Your task to perform on an android device: Show me popular videos on Youtube Image 0: 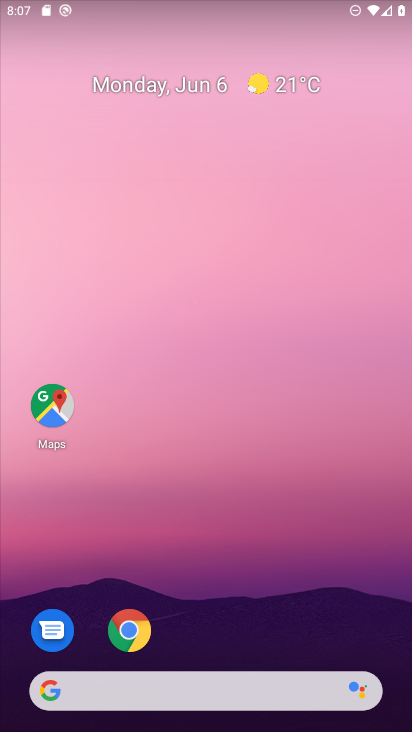
Step 0: drag from (213, 663) to (310, 114)
Your task to perform on an android device: Show me popular videos on Youtube Image 1: 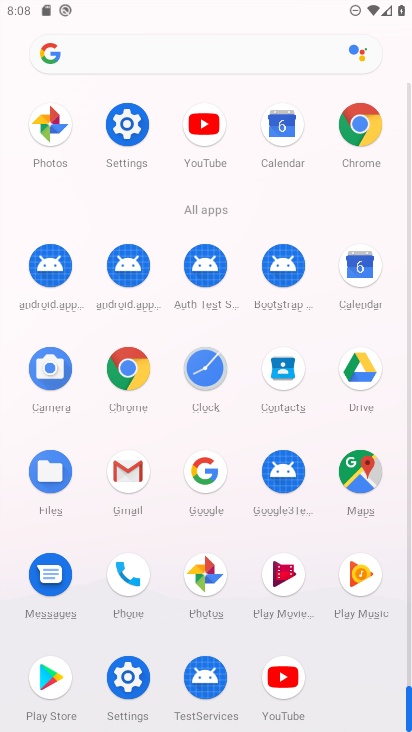
Step 1: click (296, 672)
Your task to perform on an android device: Show me popular videos on Youtube Image 2: 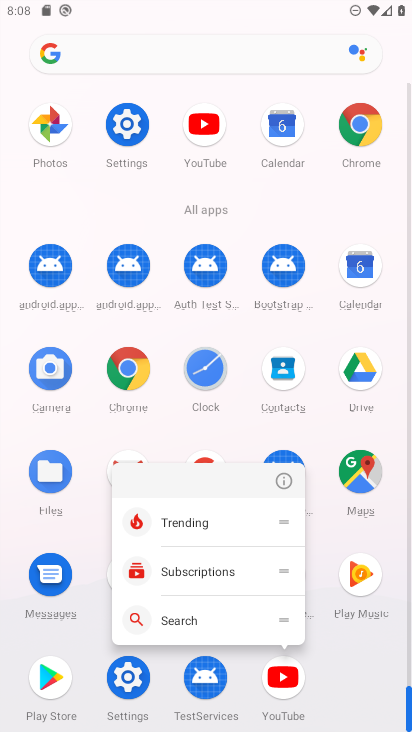
Step 2: click (274, 668)
Your task to perform on an android device: Show me popular videos on Youtube Image 3: 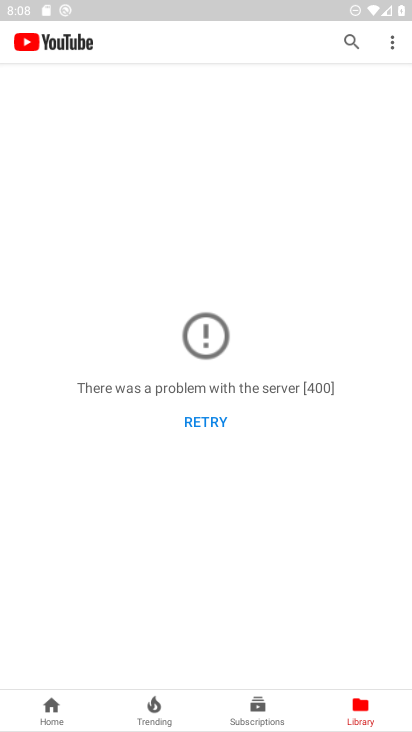
Step 3: task complete